Your task to perform on an android device: Open network settings Image 0: 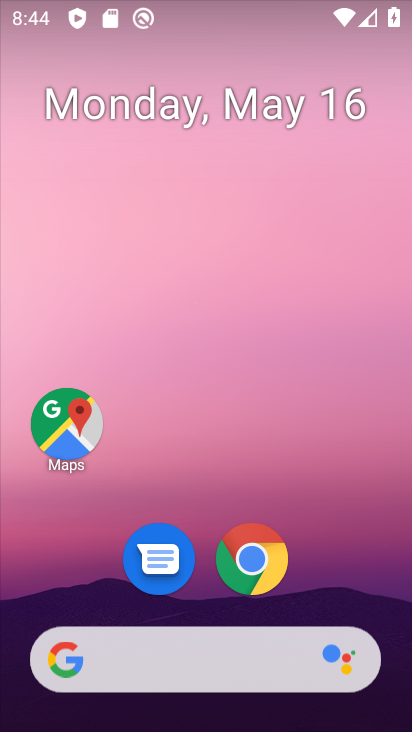
Step 0: drag from (332, 584) to (225, 155)
Your task to perform on an android device: Open network settings Image 1: 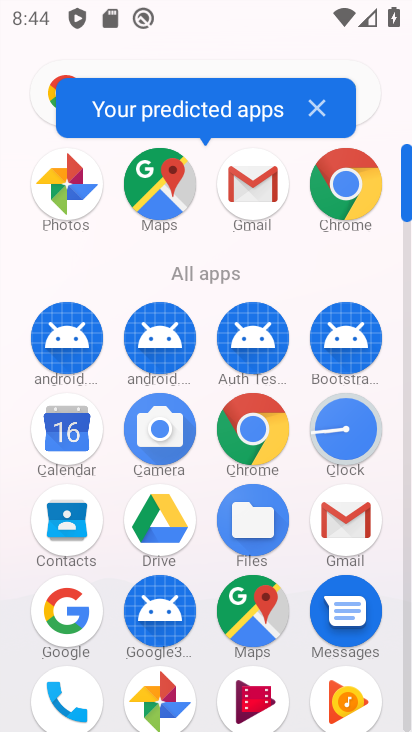
Step 1: click (408, 655)
Your task to perform on an android device: Open network settings Image 2: 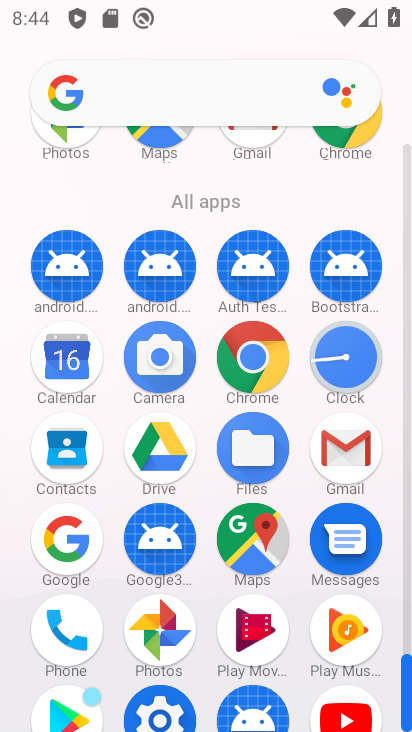
Step 2: click (175, 712)
Your task to perform on an android device: Open network settings Image 3: 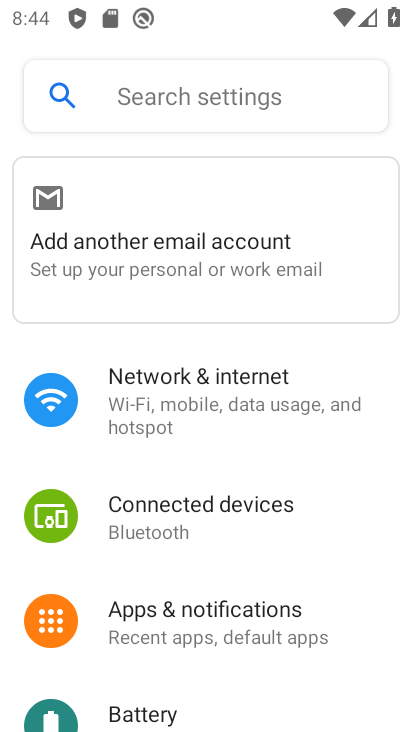
Step 3: click (191, 396)
Your task to perform on an android device: Open network settings Image 4: 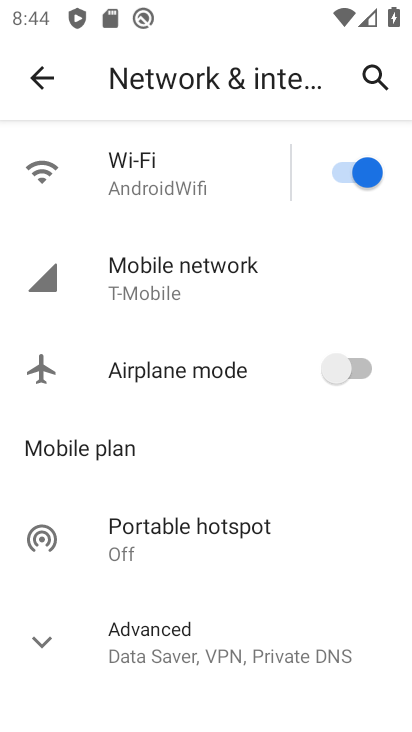
Step 4: task complete